Your task to perform on an android device: Open sound settings Image 0: 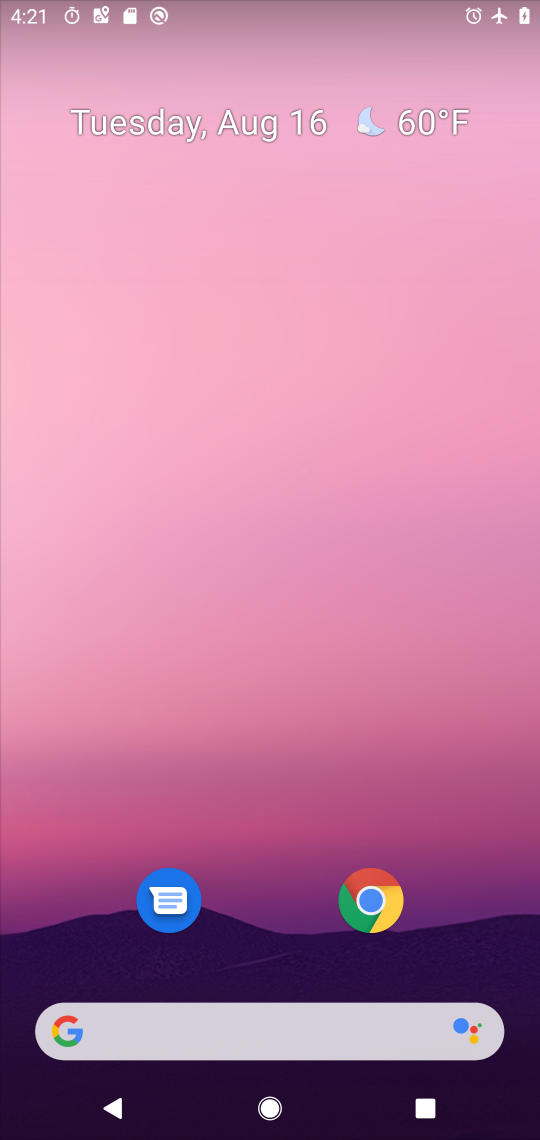
Step 0: drag from (295, 962) to (275, 137)
Your task to perform on an android device: Open sound settings Image 1: 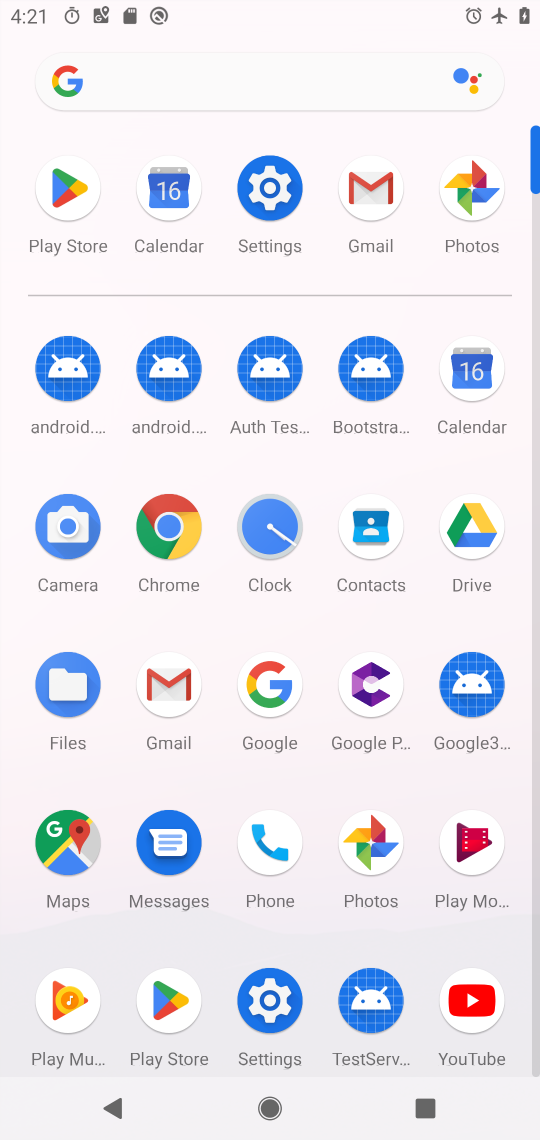
Step 1: click (261, 201)
Your task to perform on an android device: Open sound settings Image 2: 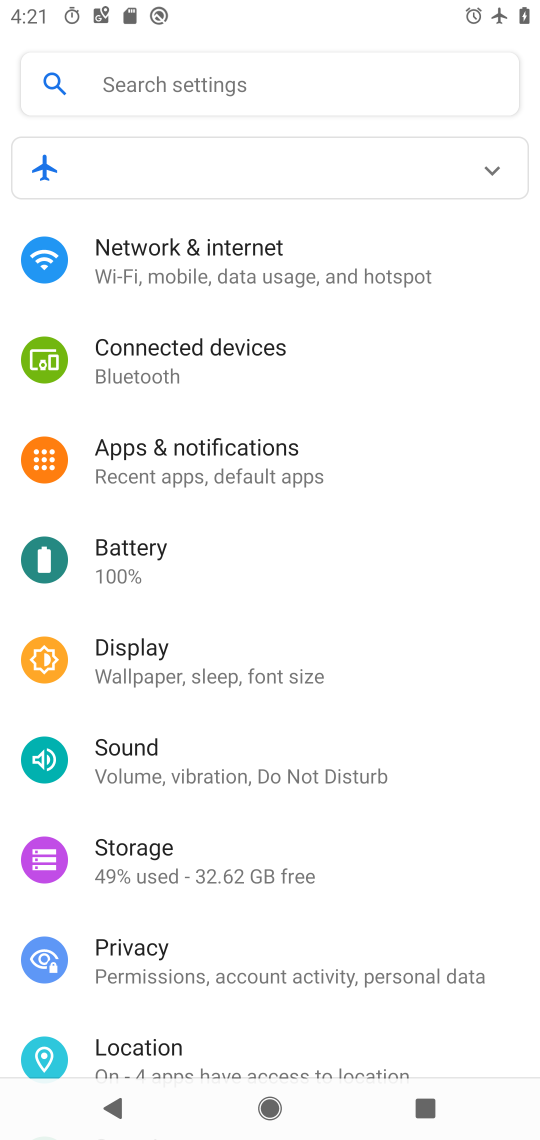
Step 2: click (143, 744)
Your task to perform on an android device: Open sound settings Image 3: 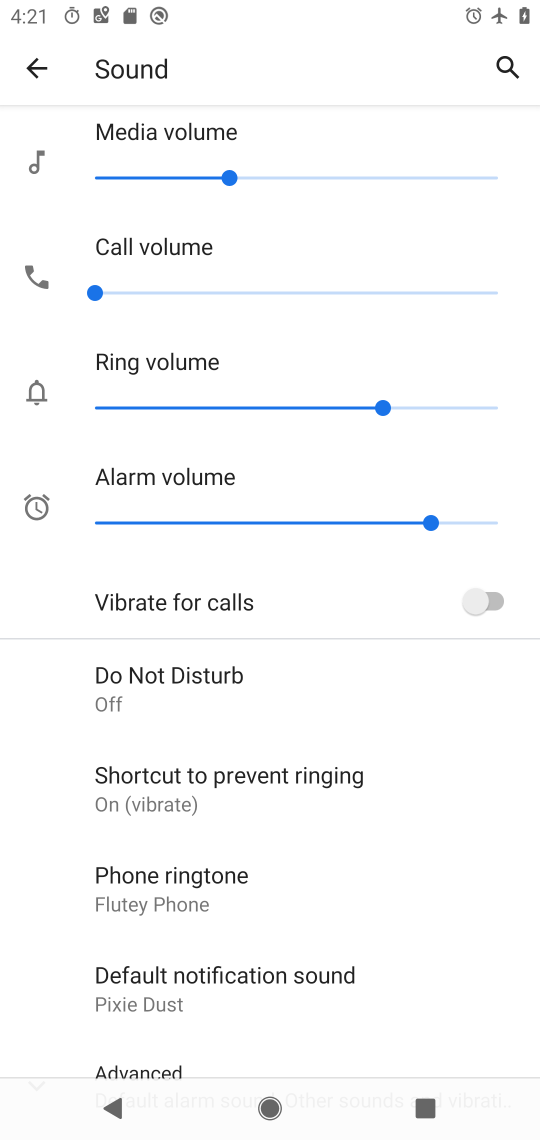
Step 3: task complete